Your task to perform on an android device: Open Google Maps Image 0: 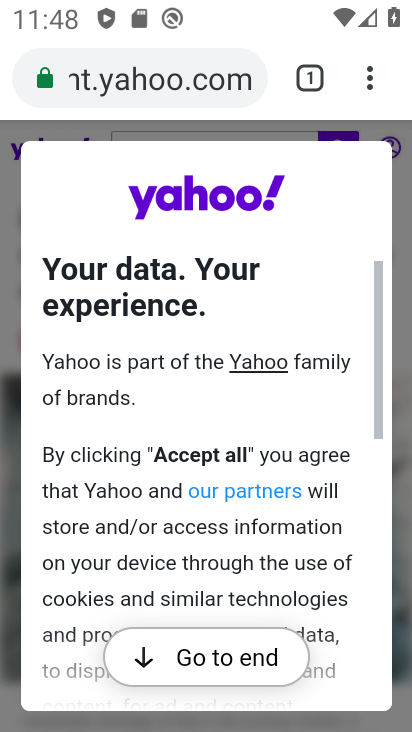
Step 0: press home button
Your task to perform on an android device: Open Google Maps Image 1: 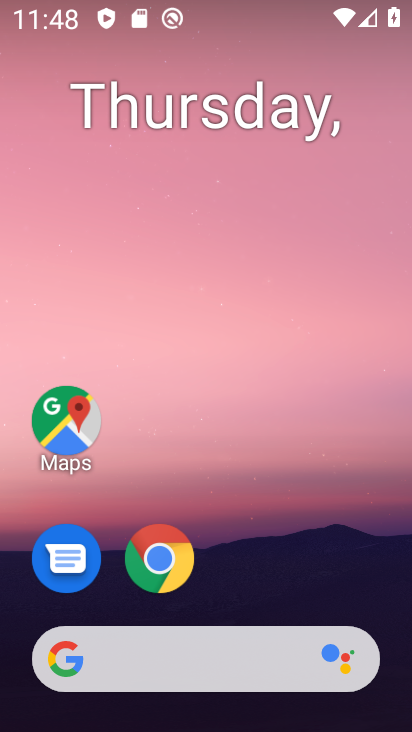
Step 1: drag from (365, 582) to (407, 474)
Your task to perform on an android device: Open Google Maps Image 2: 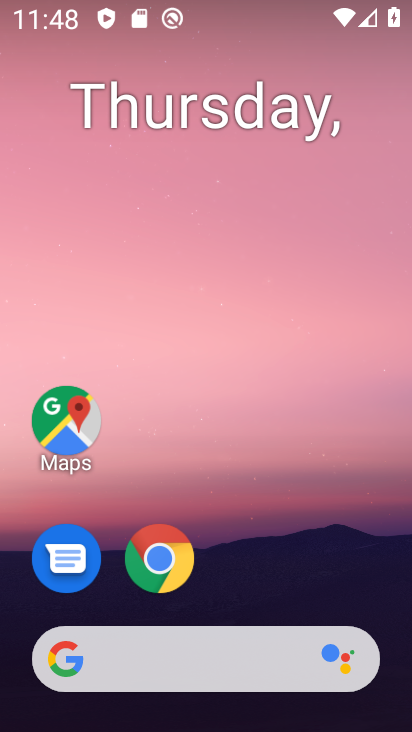
Step 2: drag from (352, 565) to (401, 56)
Your task to perform on an android device: Open Google Maps Image 3: 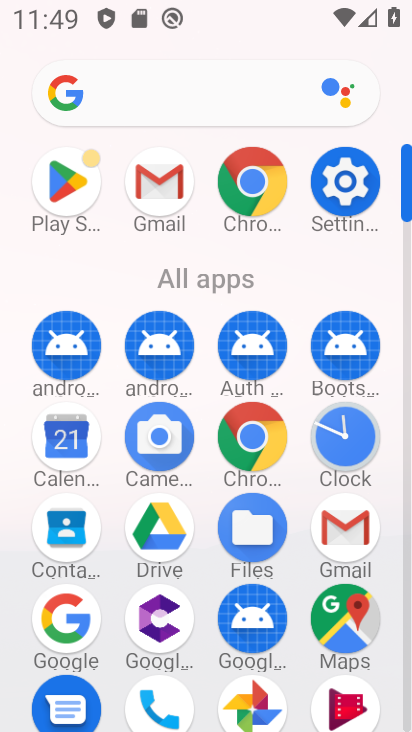
Step 3: click (347, 614)
Your task to perform on an android device: Open Google Maps Image 4: 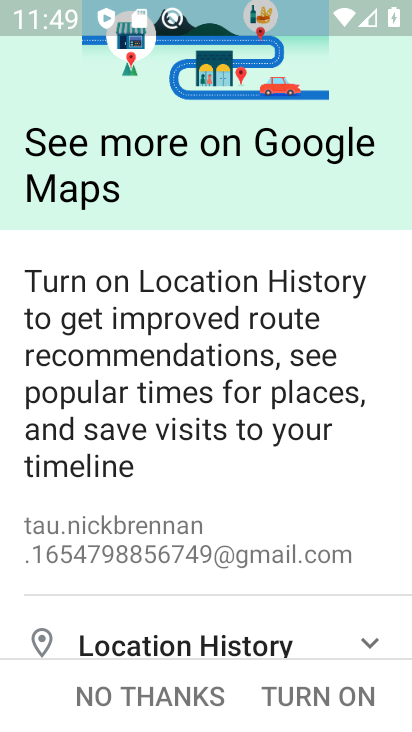
Step 4: task complete